Your task to perform on an android device: Open Google Chrome Image 0: 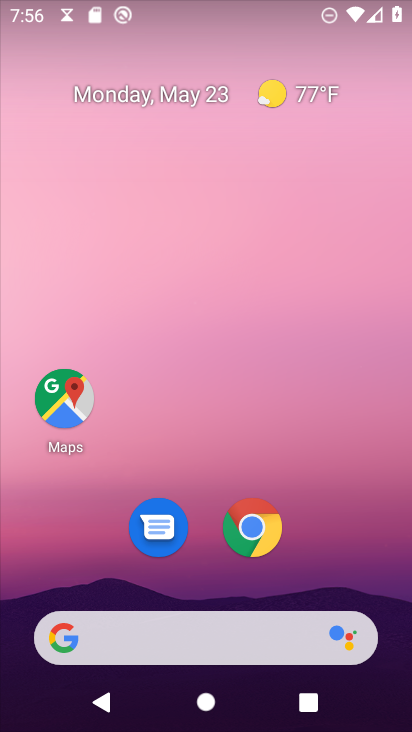
Step 0: drag from (235, 643) to (159, 174)
Your task to perform on an android device: Open Google Chrome Image 1: 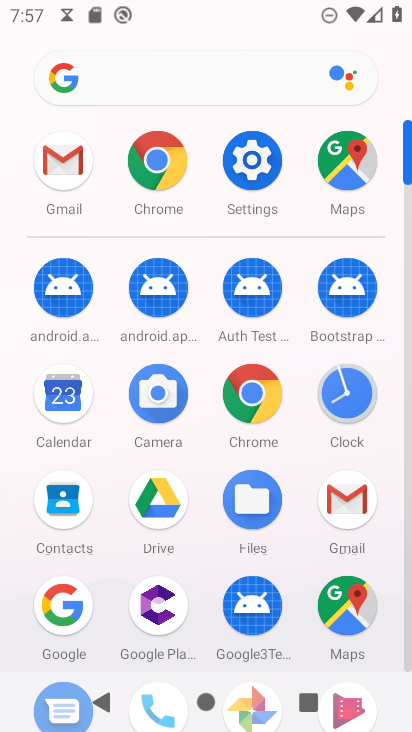
Step 1: click (175, 158)
Your task to perform on an android device: Open Google Chrome Image 2: 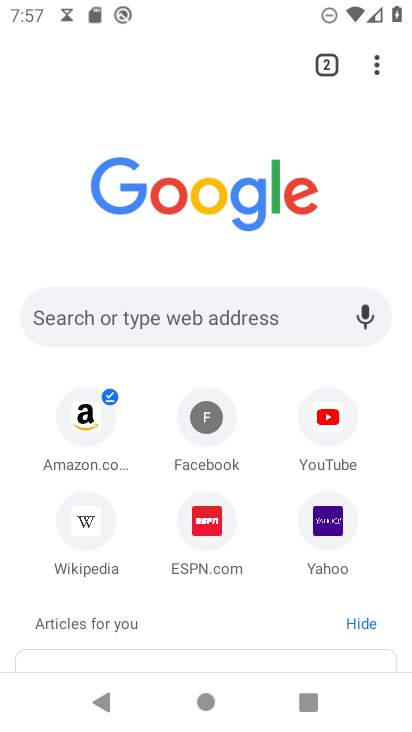
Step 2: task complete